Your task to perform on an android device: Open calendar and show me the first week of next month Image 0: 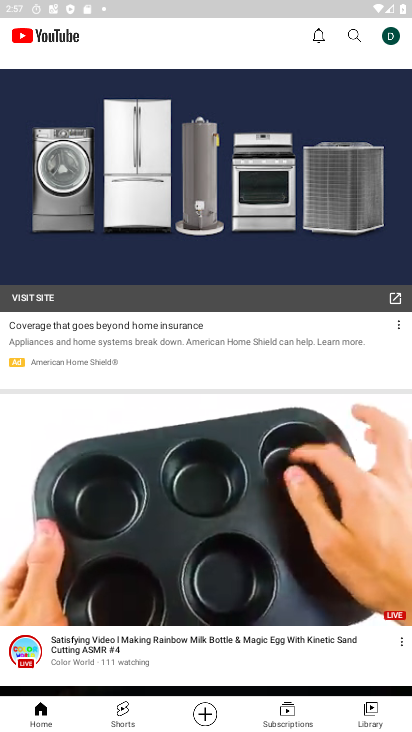
Step 0: press home button
Your task to perform on an android device: Open calendar and show me the first week of next month Image 1: 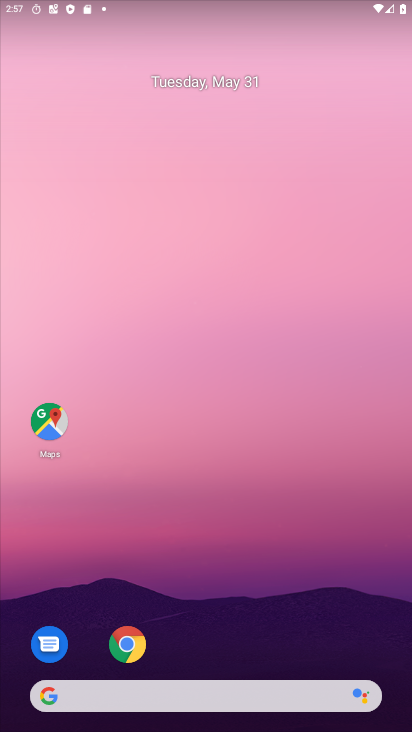
Step 1: drag from (386, 644) to (338, 146)
Your task to perform on an android device: Open calendar and show me the first week of next month Image 2: 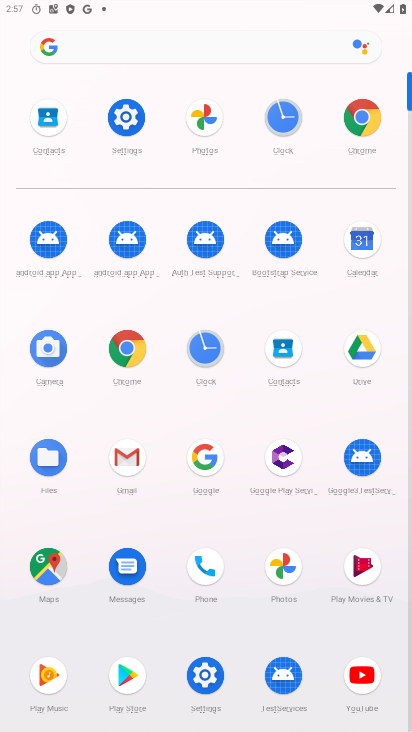
Step 2: click (348, 247)
Your task to perform on an android device: Open calendar and show me the first week of next month Image 3: 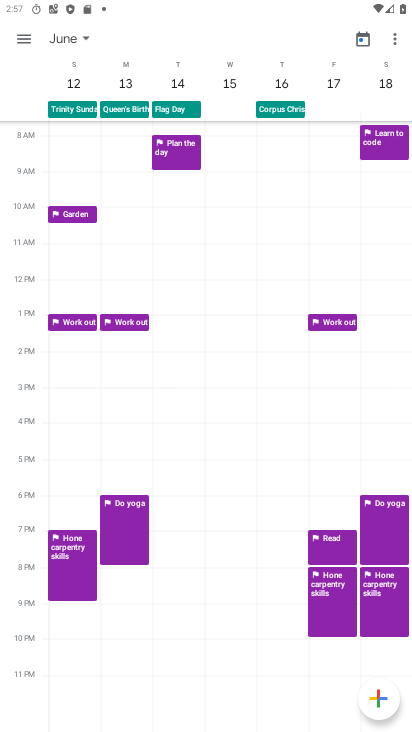
Step 3: click (85, 34)
Your task to perform on an android device: Open calendar and show me the first week of next month Image 4: 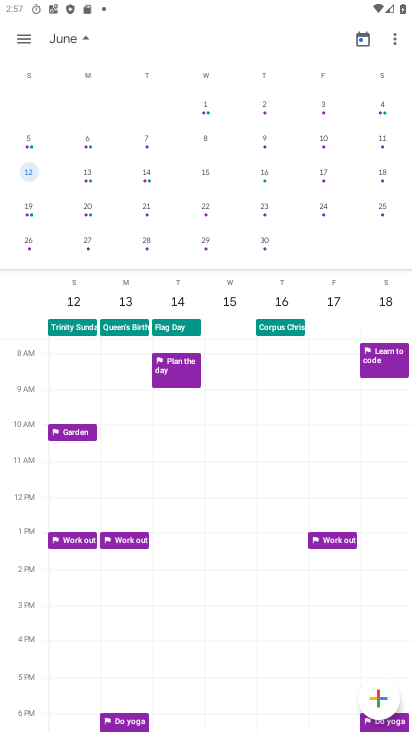
Step 4: click (265, 104)
Your task to perform on an android device: Open calendar and show me the first week of next month Image 5: 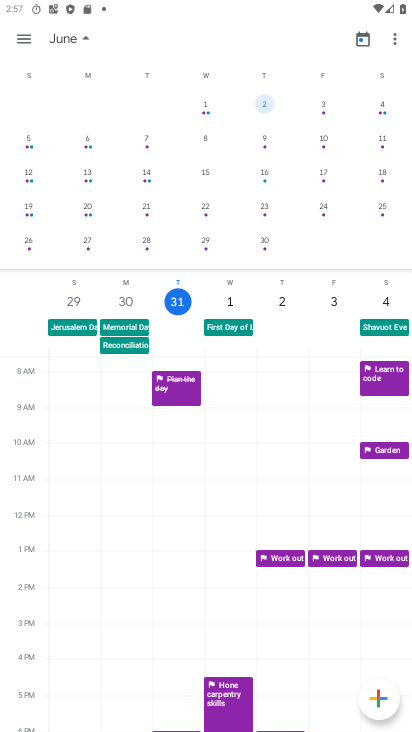
Step 5: task complete